Your task to perform on an android device: set default search engine in the chrome app Image 0: 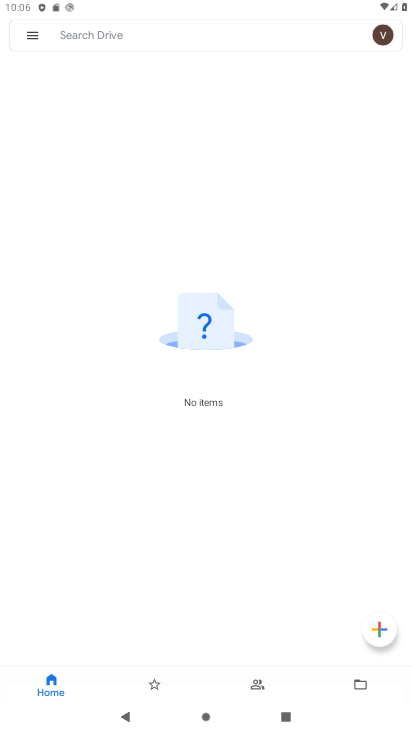
Step 0: press home button
Your task to perform on an android device: set default search engine in the chrome app Image 1: 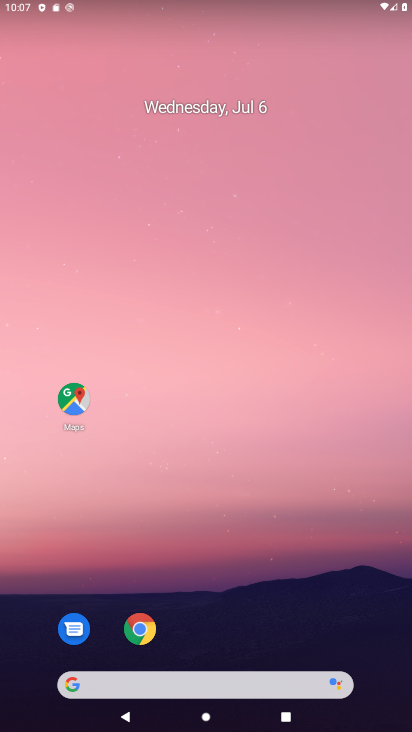
Step 1: click (150, 635)
Your task to perform on an android device: set default search engine in the chrome app Image 2: 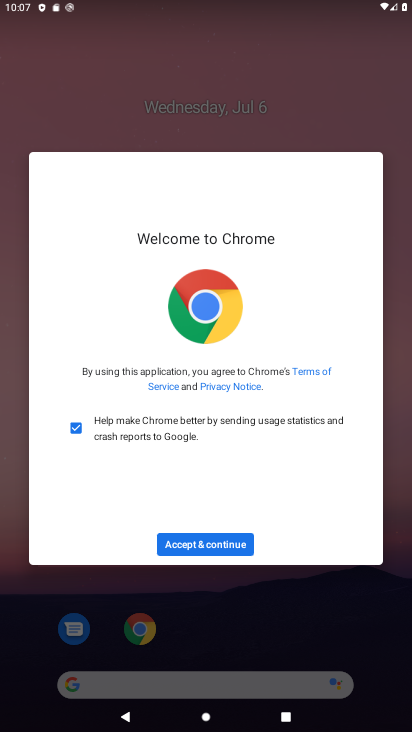
Step 2: click (201, 538)
Your task to perform on an android device: set default search engine in the chrome app Image 3: 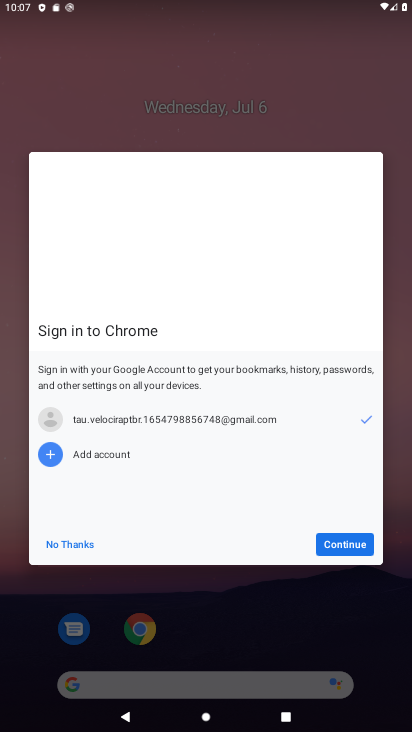
Step 3: click (84, 539)
Your task to perform on an android device: set default search engine in the chrome app Image 4: 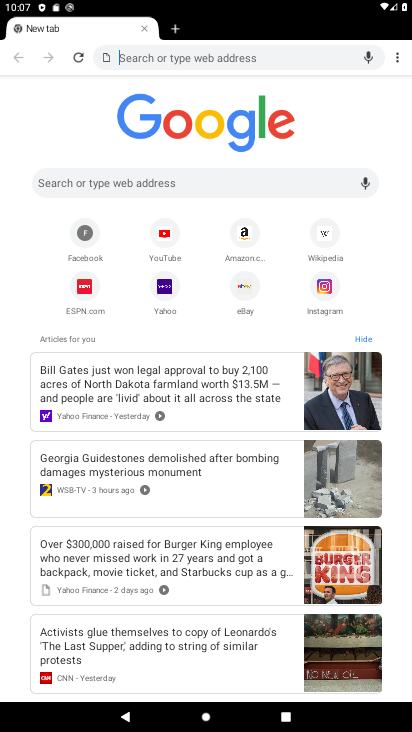
Step 4: click (390, 53)
Your task to perform on an android device: set default search engine in the chrome app Image 5: 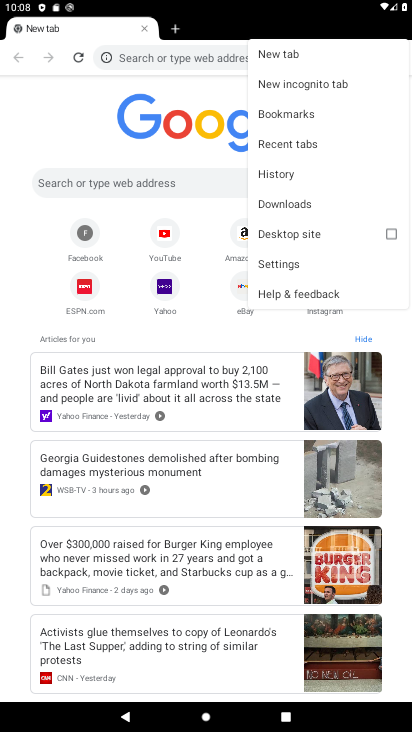
Step 5: click (284, 266)
Your task to perform on an android device: set default search engine in the chrome app Image 6: 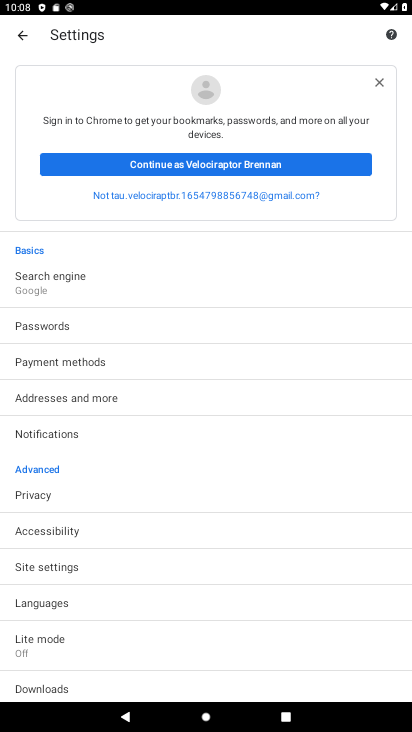
Step 6: click (51, 279)
Your task to perform on an android device: set default search engine in the chrome app Image 7: 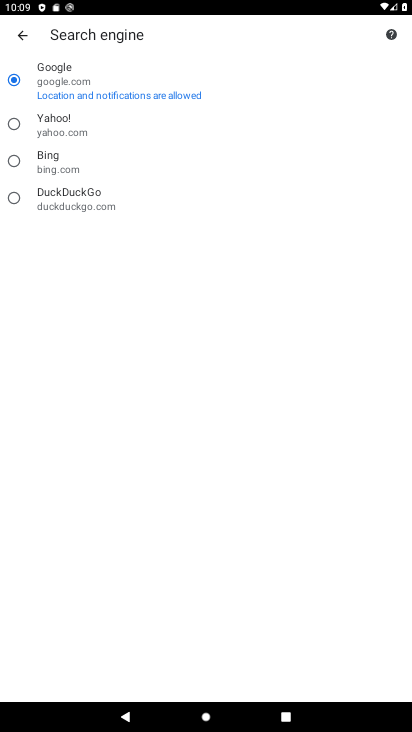
Step 7: click (67, 141)
Your task to perform on an android device: set default search engine in the chrome app Image 8: 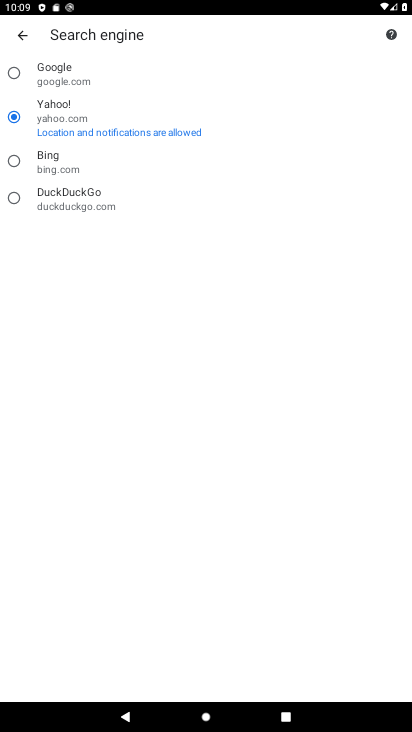
Step 8: task complete